Your task to perform on an android device: add a label to a message in the gmail app Image 0: 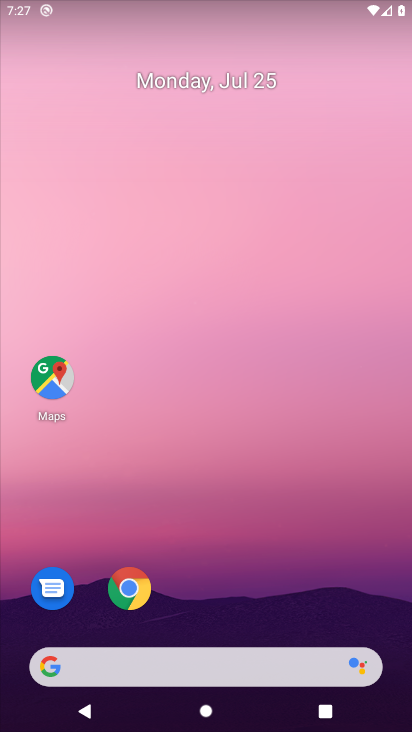
Step 0: drag from (225, 499) to (267, 158)
Your task to perform on an android device: add a label to a message in the gmail app Image 1: 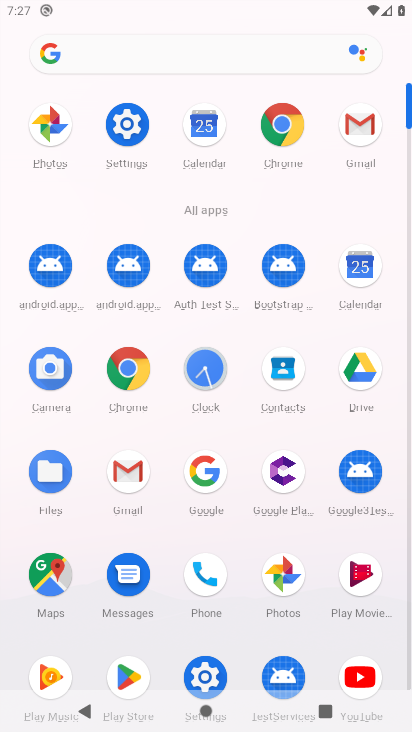
Step 1: click (116, 481)
Your task to perform on an android device: add a label to a message in the gmail app Image 2: 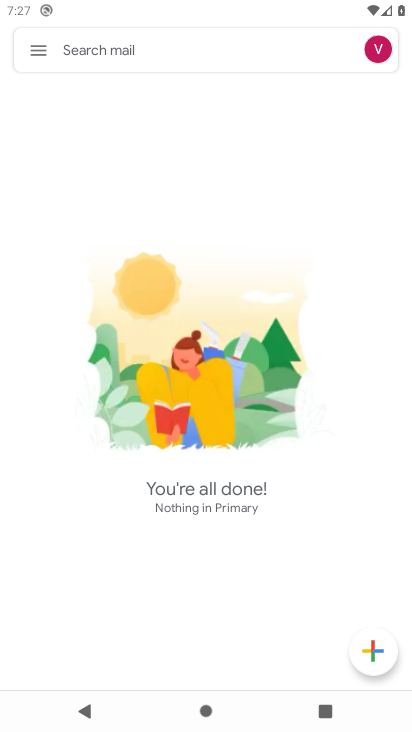
Step 2: click (30, 45)
Your task to perform on an android device: add a label to a message in the gmail app Image 3: 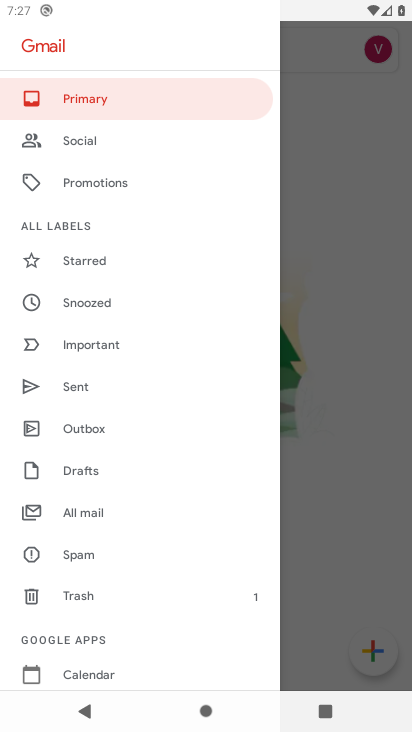
Step 3: task complete